Your task to perform on an android device: Search for sushi restaurants on Maps Image 0: 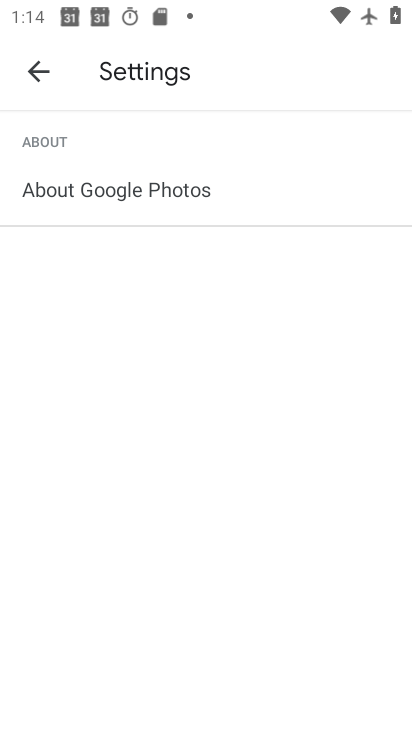
Step 0: press home button
Your task to perform on an android device: Search for sushi restaurants on Maps Image 1: 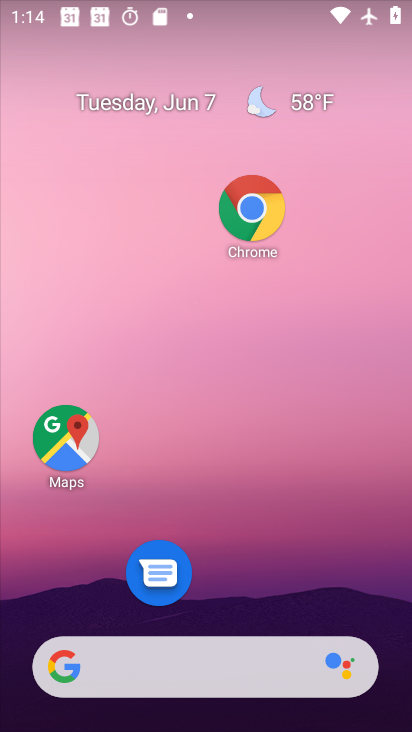
Step 1: click (82, 448)
Your task to perform on an android device: Search for sushi restaurants on Maps Image 2: 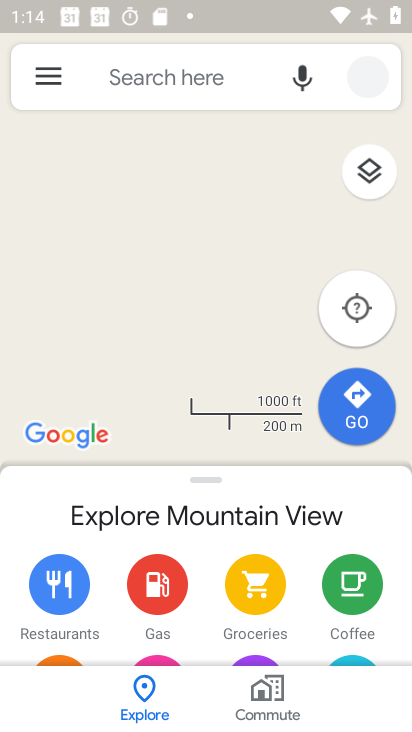
Step 2: click (198, 76)
Your task to perform on an android device: Search for sushi restaurants on Maps Image 3: 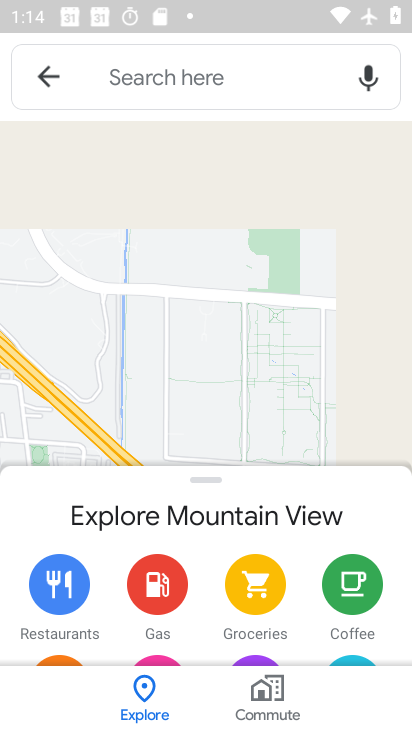
Step 3: click (167, 78)
Your task to perform on an android device: Search for sushi restaurants on Maps Image 4: 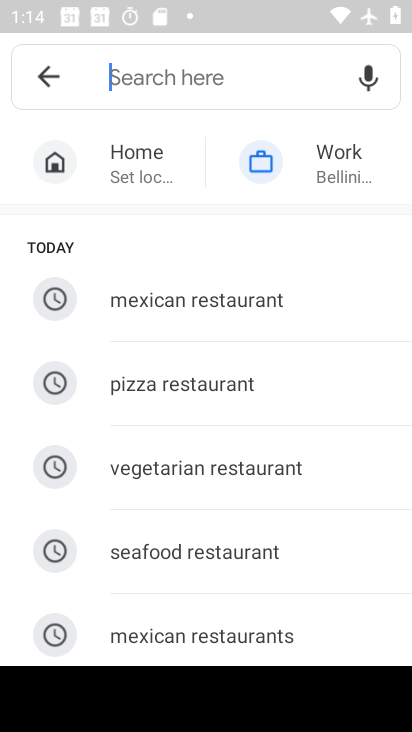
Step 4: type "sushi restaurants"
Your task to perform on an android device: Search for sushi restaurants on Maps Image 5: 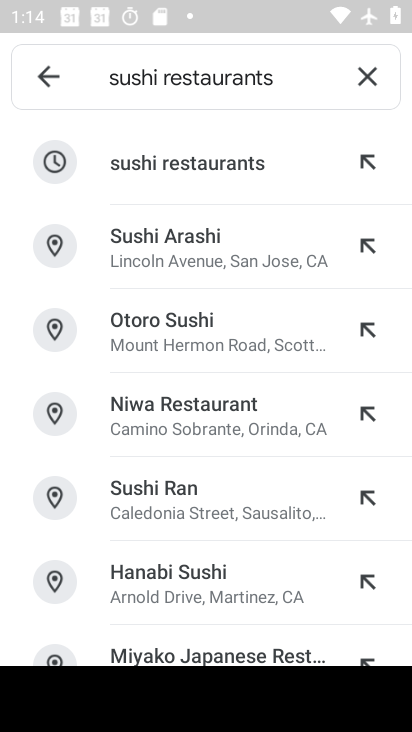
Step 5: click (253, 160)
Your task to perform on an android device: Search for sushi restaurants on Maps Image 6: 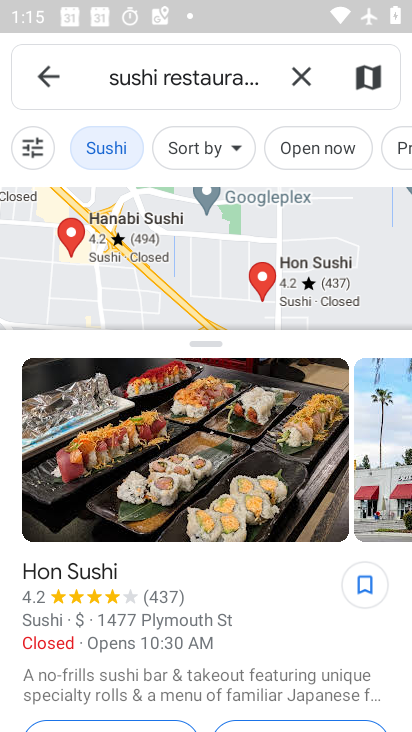
Step 6: task complete